Your task to perform on an android device: Go to settings Image 0: 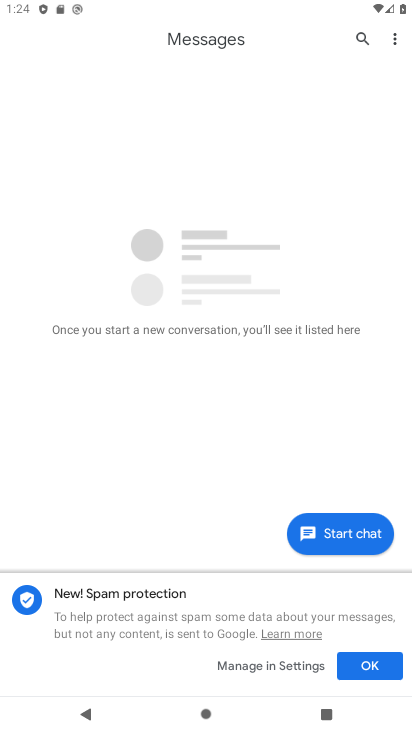
Step 0: press home button
Your task to perform on an android device: Go to settings Image 1: 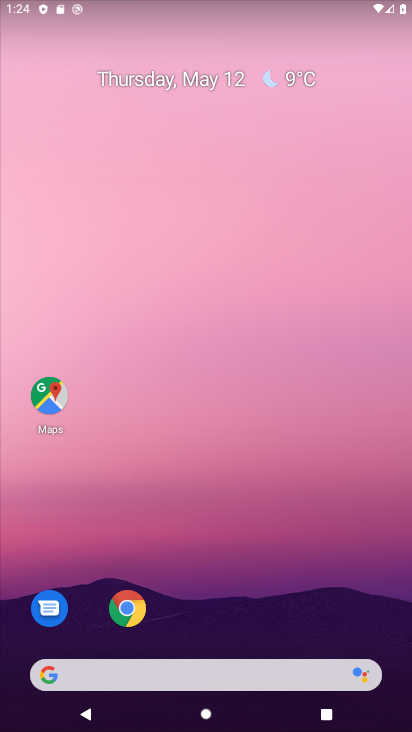
Step 1: drag from (190, 609) to (120, 330)
Your task to perform on an android device: Go to settings Image 2: 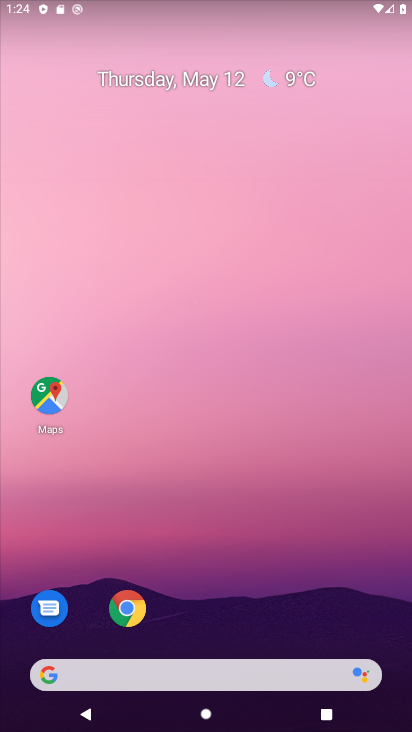
Step 2: drag from (232, 640) to (291, 2)
Your task to perform on an android device: Go to settings Image 3: 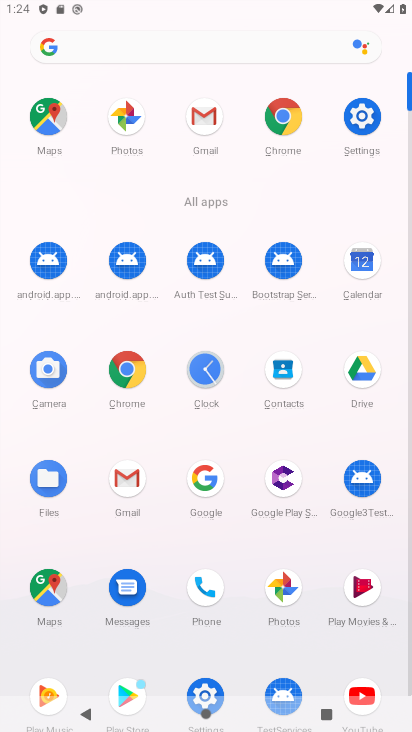
Step 3: click (367, 119)
Your task to perform on an android device: Go to settings Image 4: 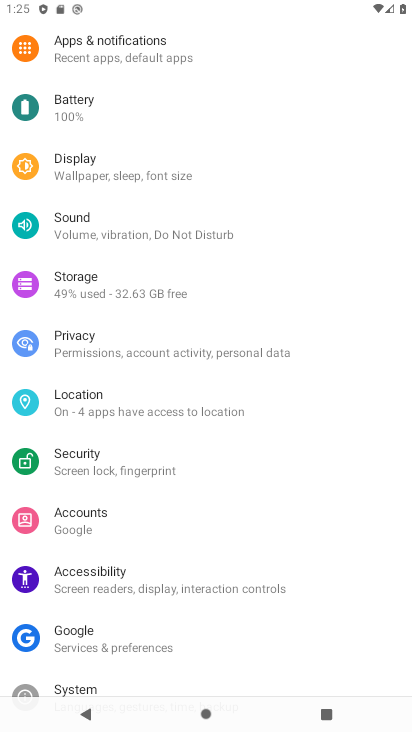
Step 4: task complete